Your task to perform on an android device: Go to Google maps Image 0: 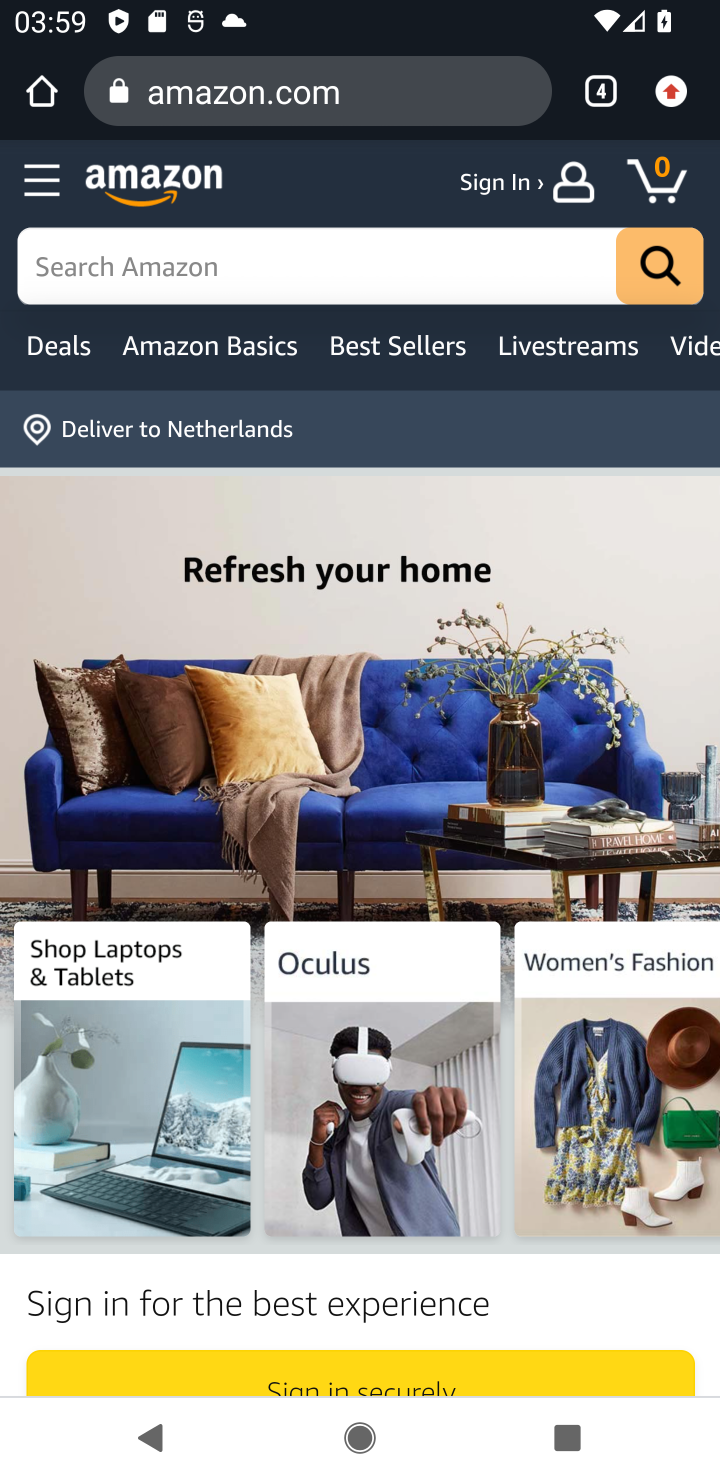
Step 0: press home button
Your task to perform on an android device: Go to Google maps Image 1: 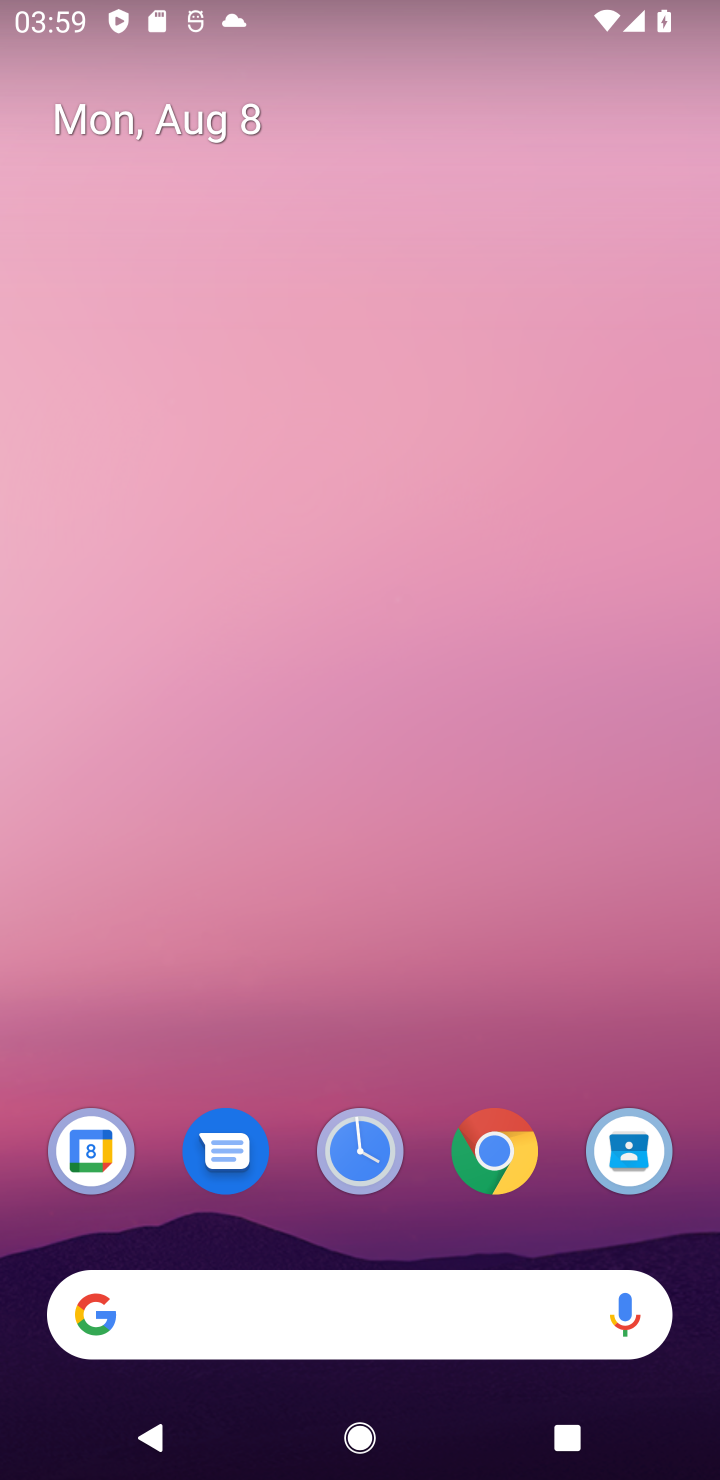
Step 1: drag from (399, 892) to (399, 149)
Your task to perform on an android device: Go to Google maps Image 2: 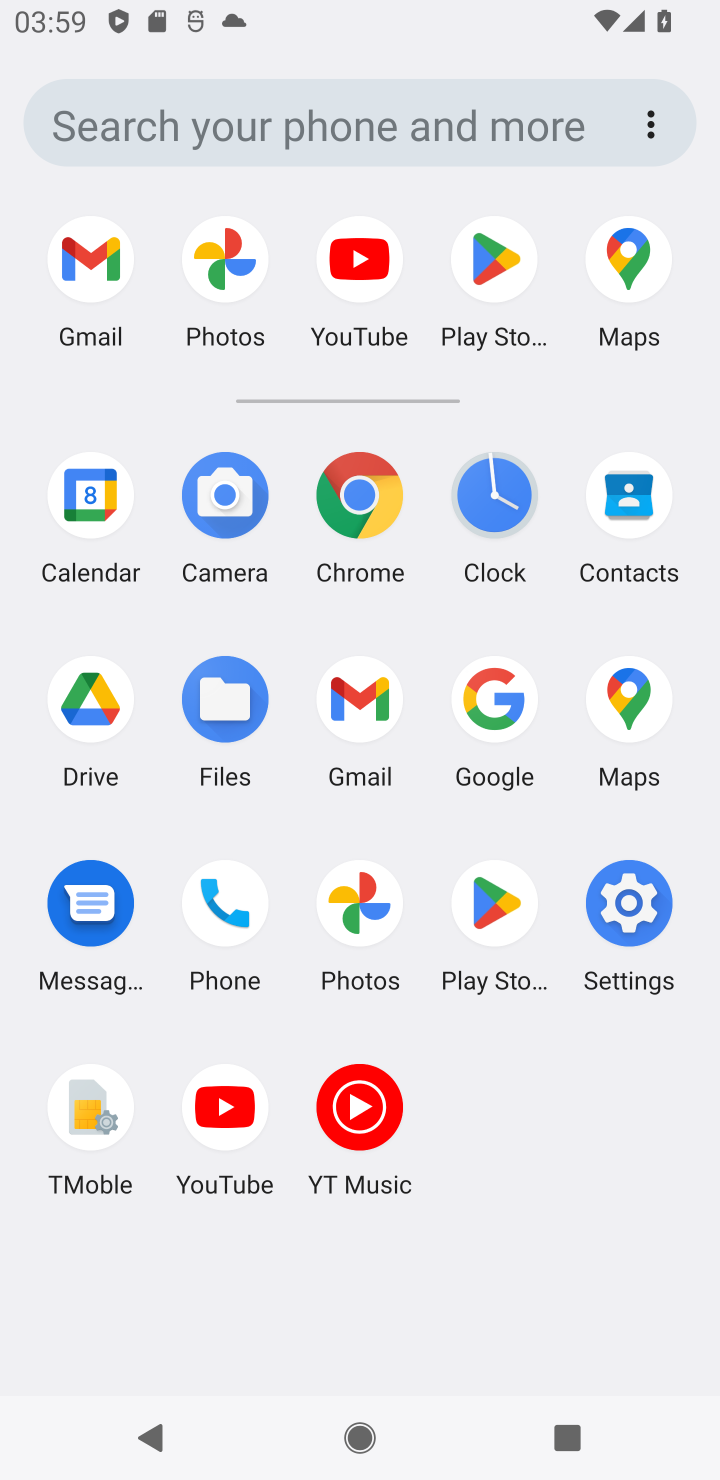
Step 2: click (618, 718)
Your task to perform on an android device: Go to Google maps Image 3: 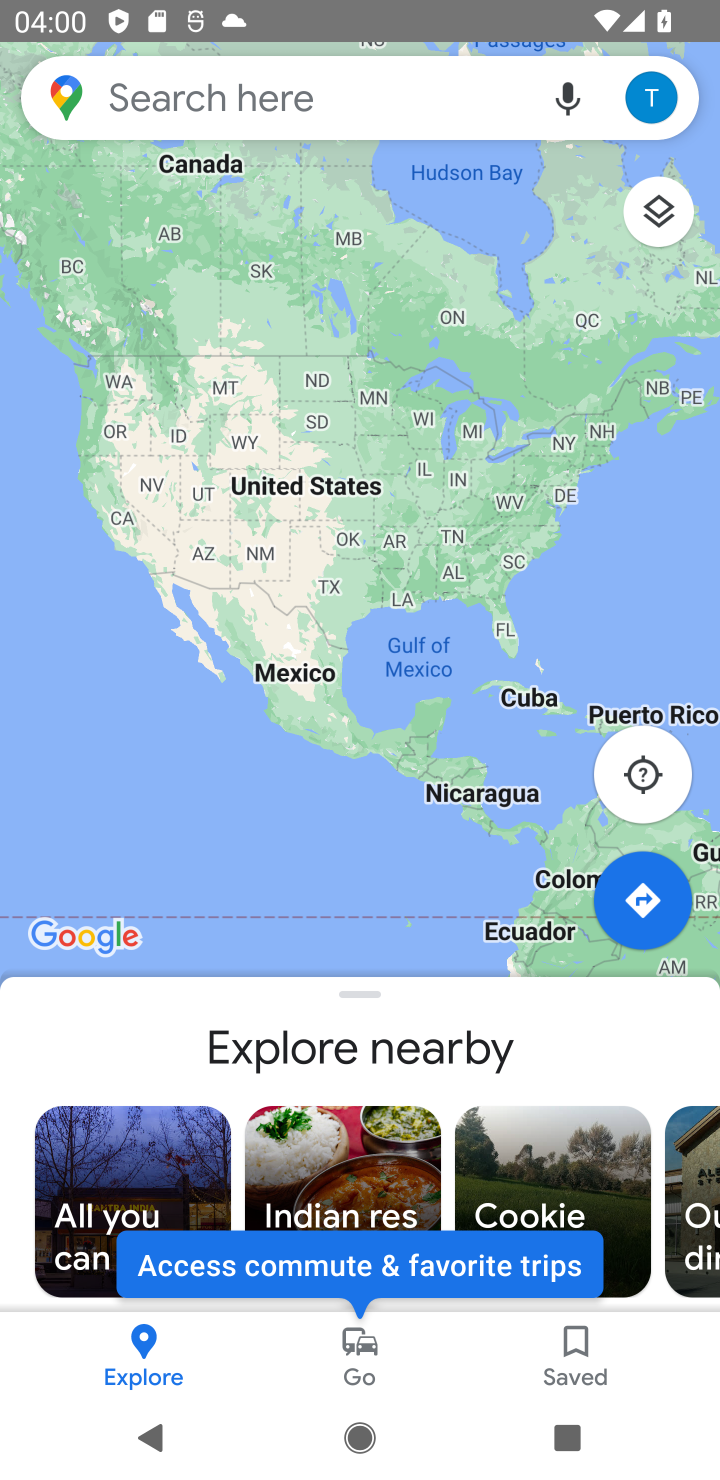
Step 3: task complete